Your task to perform on an android device: Go to wifi settings Image 0: 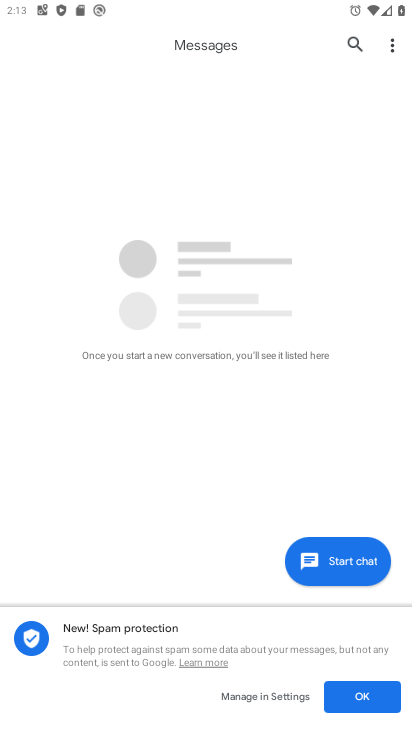
Step 0: press home button
Your task to perform on an android device: Go to wifi settings Image 1: 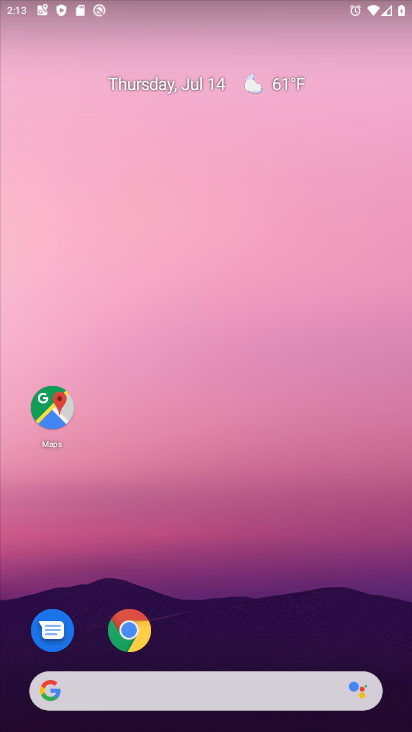
Step 1: drag from (162, 688) to (264, 43)
Your task to perform on an android device: Go to wifi settings Image 2: 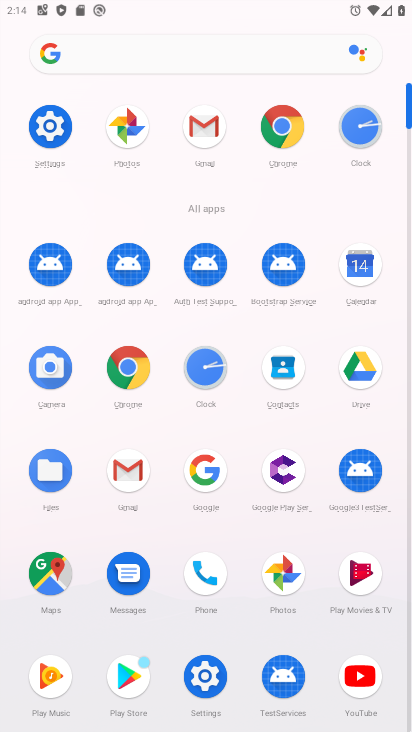
Step 2: click (51, 137)
Your task to perform on an android device: Go to wifi settings Image 3: 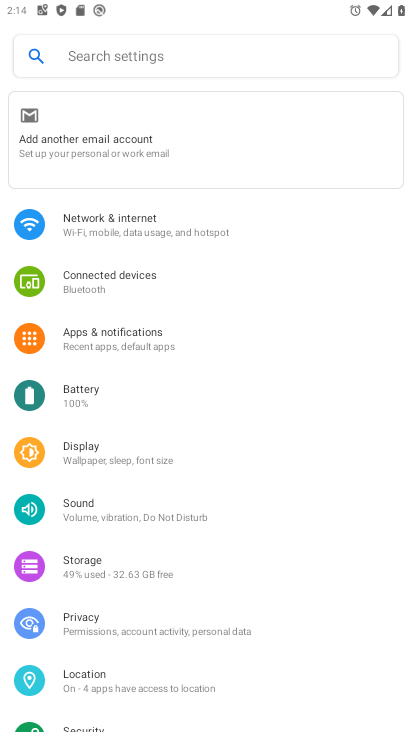
Step 3: click (158, 219)
Your task to perform on an android device: Go to wifi settings Image 4: 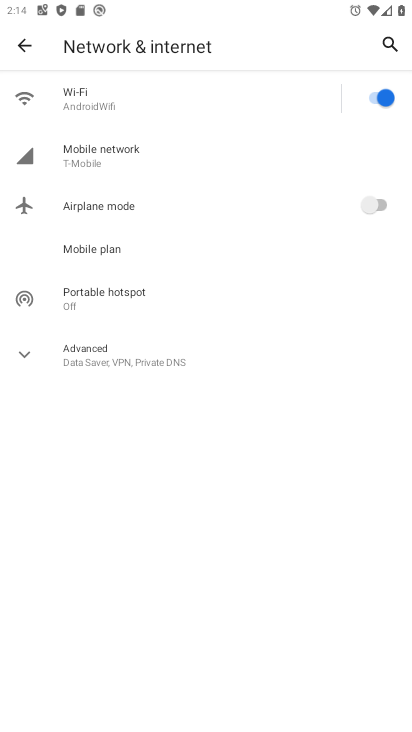
Step 4: click (93, 97)
Your task to perform on an android device: Go to wifi settings Image 5: 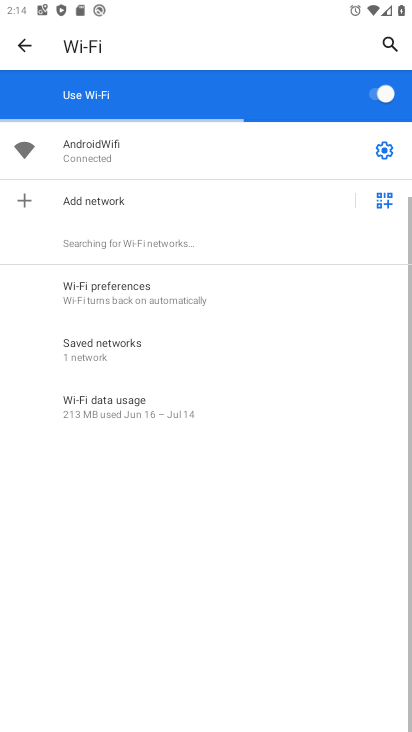
Step 5: task complete